Your task to perform on an android device: check out phone information Image 0: 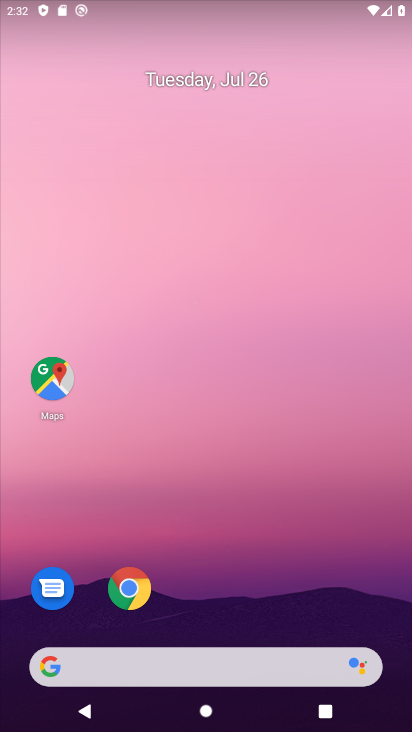
Step 0: drag from (296, 618) to (324, 81)
Your task to perform on an android device: check out phone information Image 1: 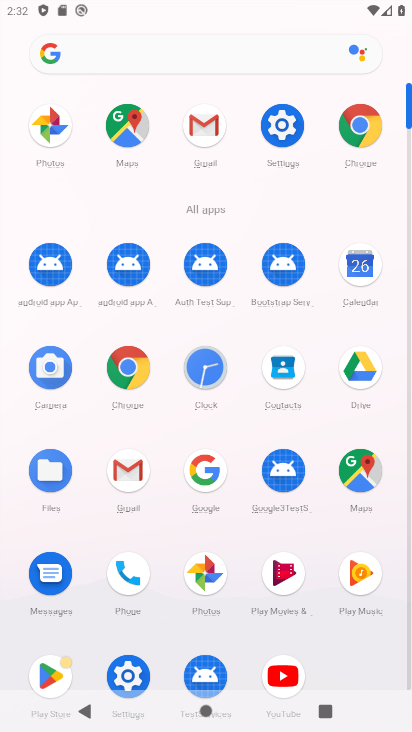
Step 1: click (284, 132)
Your task to perform on an android device: check out phone information Image 2: 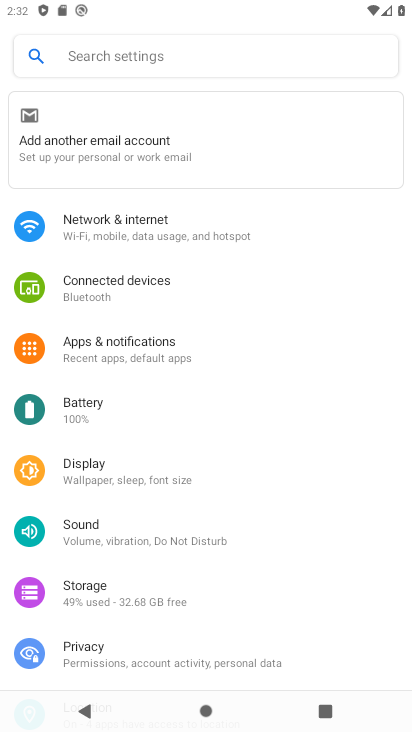
Step 2: drag from (224, 643) to (276, 12)
Your task to perform on an android device: check out phone information Image 3: 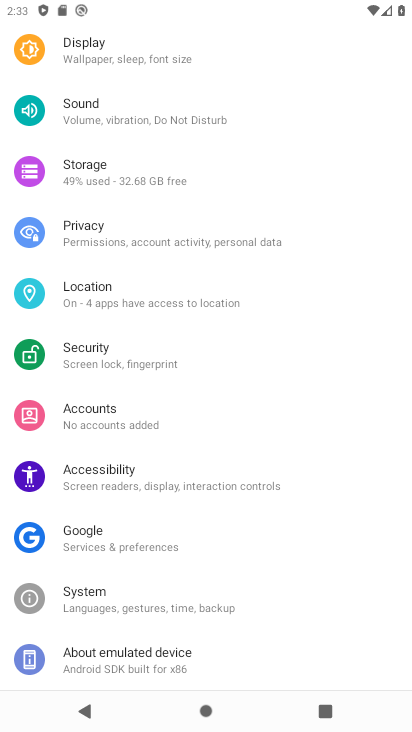
Step 3: click (209, 659)
Your task to perform on an android device: check out phone information Image 4: 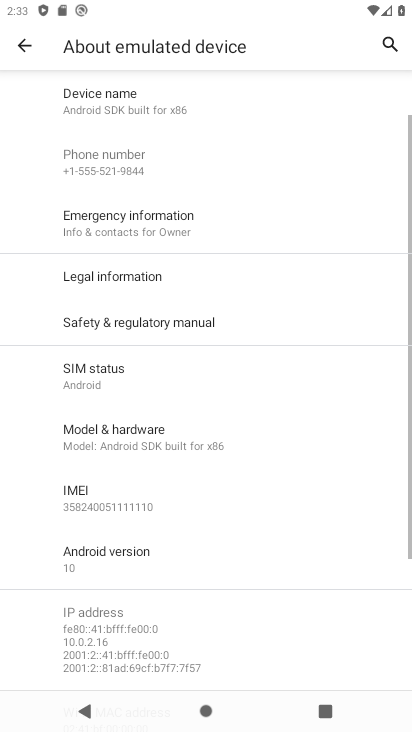
Step 4: task complete